Your task to perform on an android device: check the backup settings in the google photos Image 0: 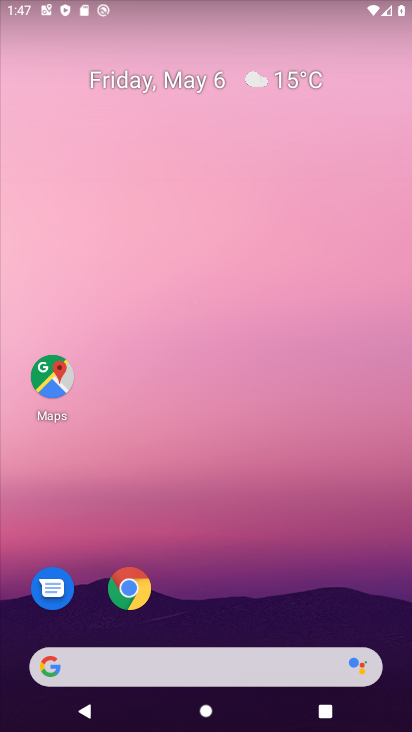
Step 0: drag from (200, 570) to (223, 173)
Your task to perform on an android device: check the backup settings in the google photos Image 1: 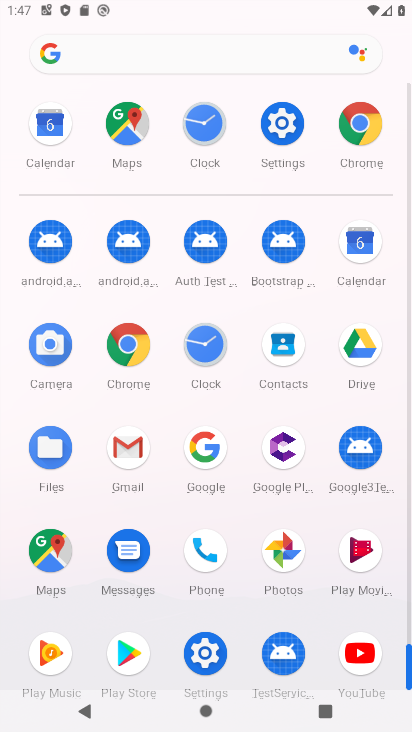
Step 1: drag from (235, 627) to (250, 183)
Your task to perform on an android device: check the backup settings in the google photos Image 2: 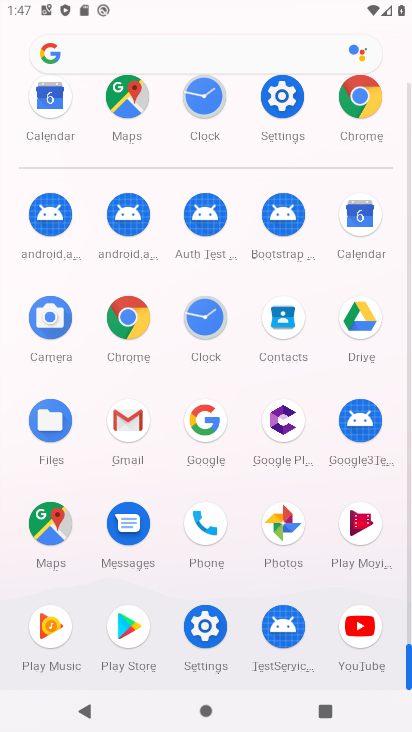
Step 2: drag from (241, 618) to (216, 212)
Your task to perform on an android device: check the backup settings in the google photos Image 3: 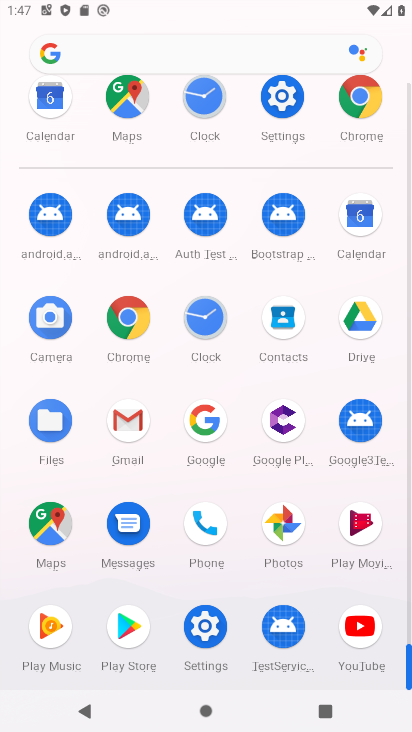
Step 3: drag from (238, 652) to (251, 296)
Your task to perform on an android device: check the backup settings in the google photos Image 4: 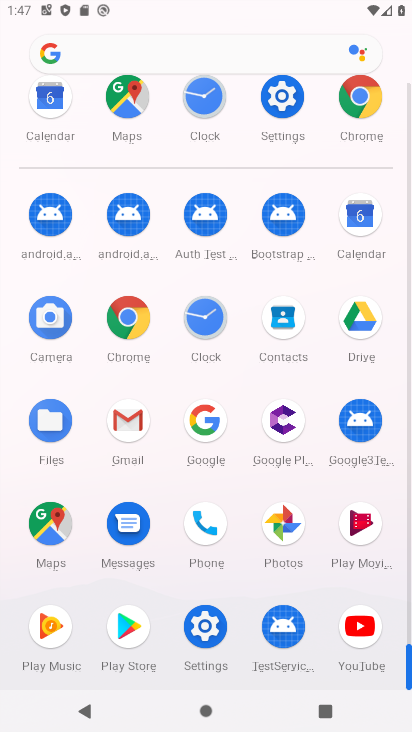
Step 4: drag from (243, 660) to (248, 222)
Your task to perform on an android device: check the backup settings in the google photos Image 5: 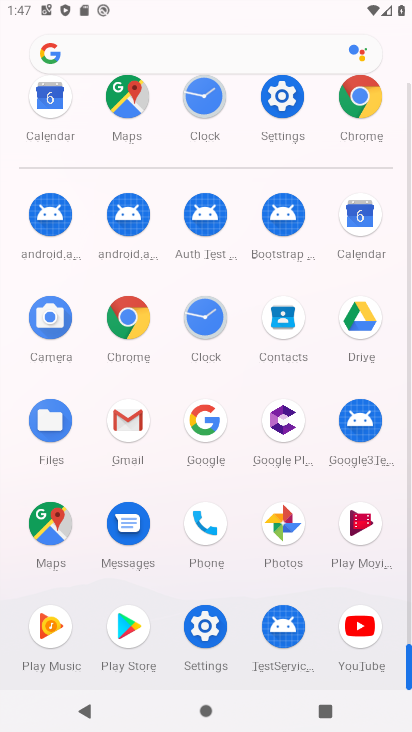
Step 5: drag from (234, 652) to (242, 219)
Your task to perform on an android device: check the backup settings in the google photos Image 6: 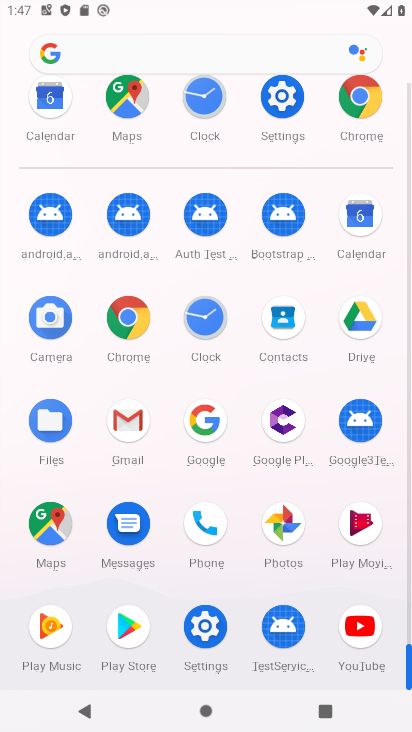
Step 6: drag from (258, 620) to (245, 231)
Your task to perform on an android device: check the backup settings in the google photos Image 7: 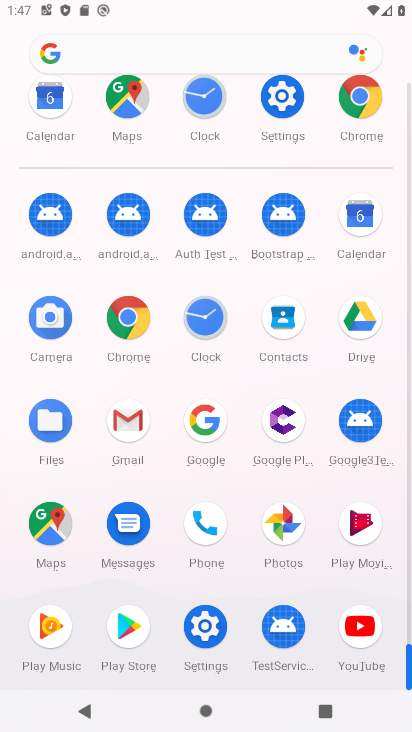
Step 7: drag from (239, 661) to (247, 191)
Your task to perform on an android device: check the backup settings in the google photos Image 8: 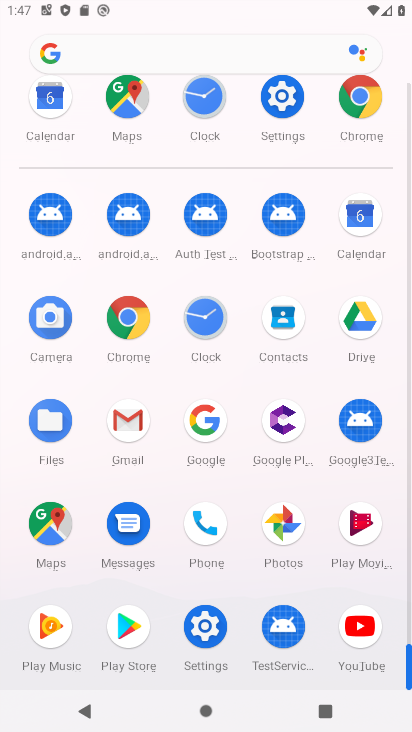
Step 8: drag from (231, 608) to (230, 240)
Your task to perform on an android device: check the backup settings in the google photos Image 9: 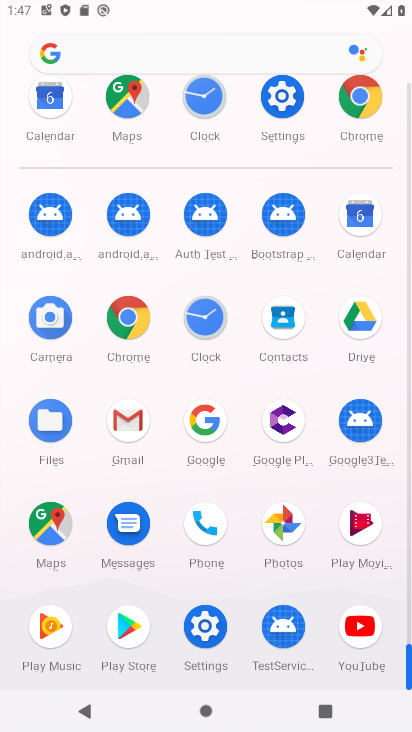
Step 9: click (282, 523)
Your task to perform on an android device: check the backup settings in the google photos Image 10: 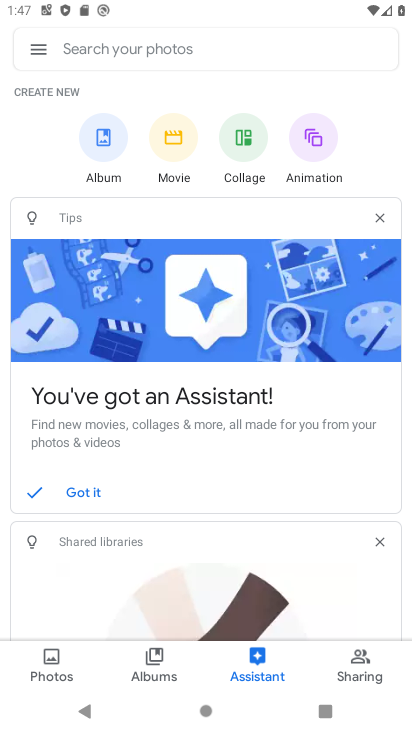
Step 10: click (36, 41)
Your task to perform on an android device: check the backup settings in the google photos Image 11: 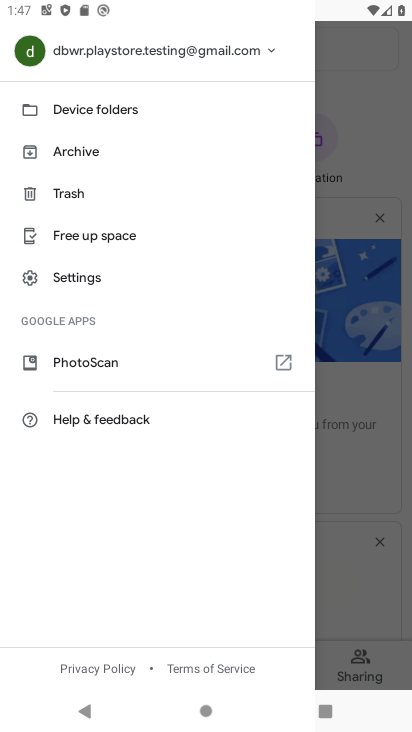
Step 11: click (69, 243)
Your task to perform on an android device: check the backup settings in the google photos Image 12: 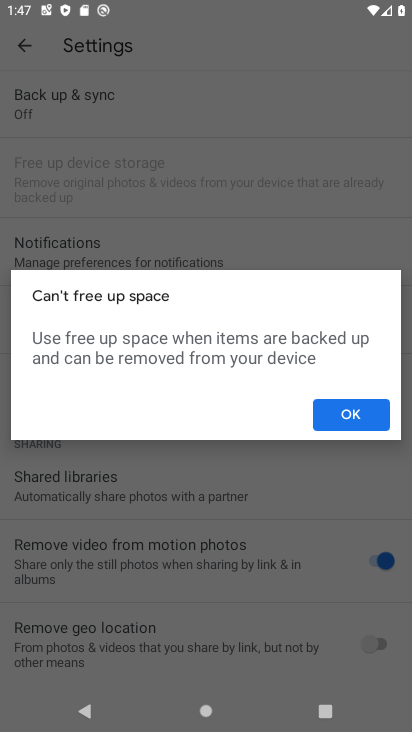
Step 12: click (363, 409)
Your task to perform on an android device: check the backup settings in the google photos Image 13: 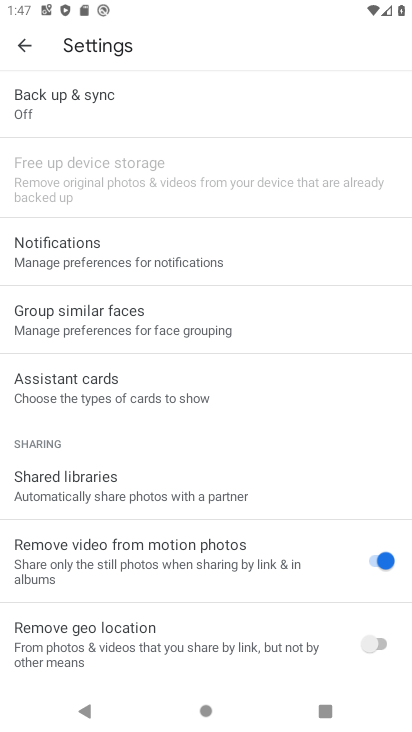
Step 13: click (18, 56)
Your task to perform on an android device: check the backup settings in the google photos Image 14: 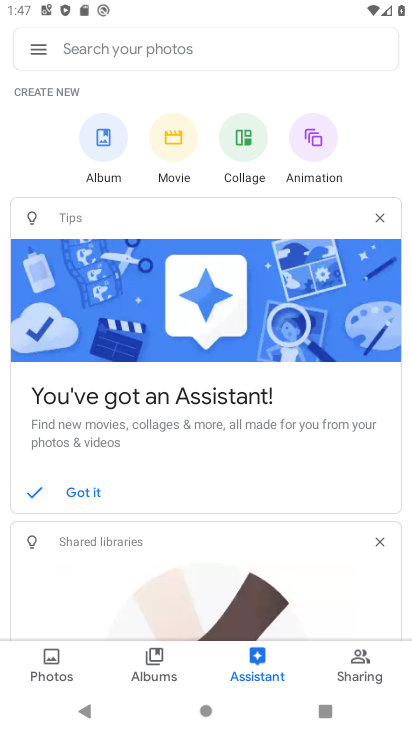
Step 14: click (32, 51)
Your task to perform on an android device: check the backup settings in the google photos Image 15: 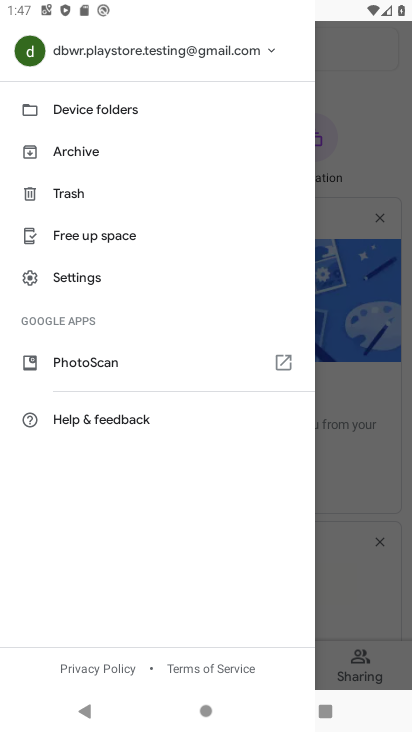
Step 15: click (87, 283)
Your task to perform on an android device: check the backup settings in the google photos Image 16: 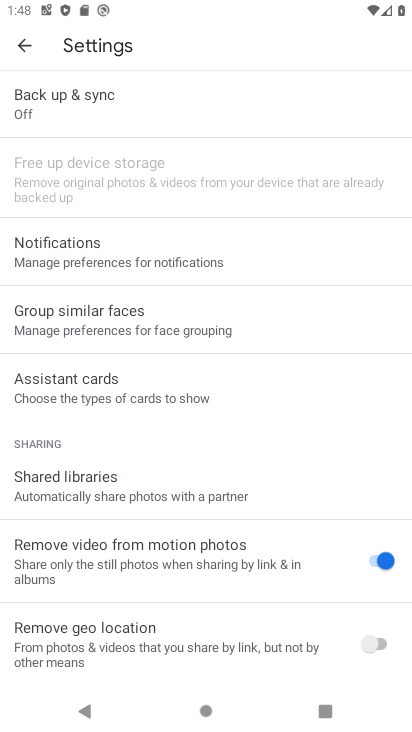
Step 16: drag from (179, 677) to (273, 700)
Your task to perform on an android device: check the backup settings in the google photos Image 17: 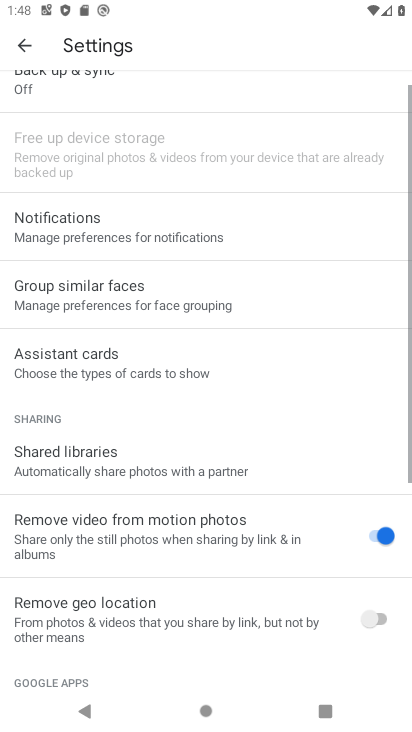
Step 17: click (121, 99)
Your task to perform on an android device: check the backup settings in the google photos Image 18: 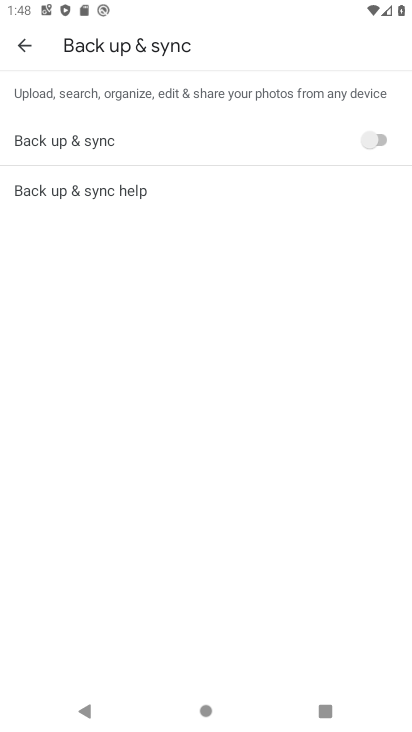
Step 18: task complete